Your task to perform on an android device: Go to network settings Image 0: 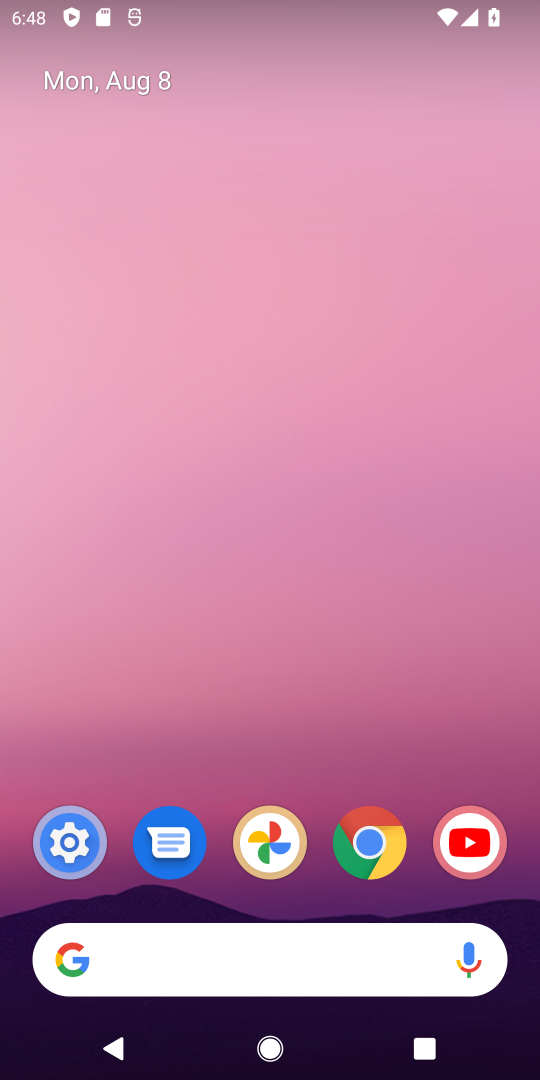
Step 0: drag from (234, 886) to (467, 17)
Your task to perform on an android device: Go to network settings Image 1: 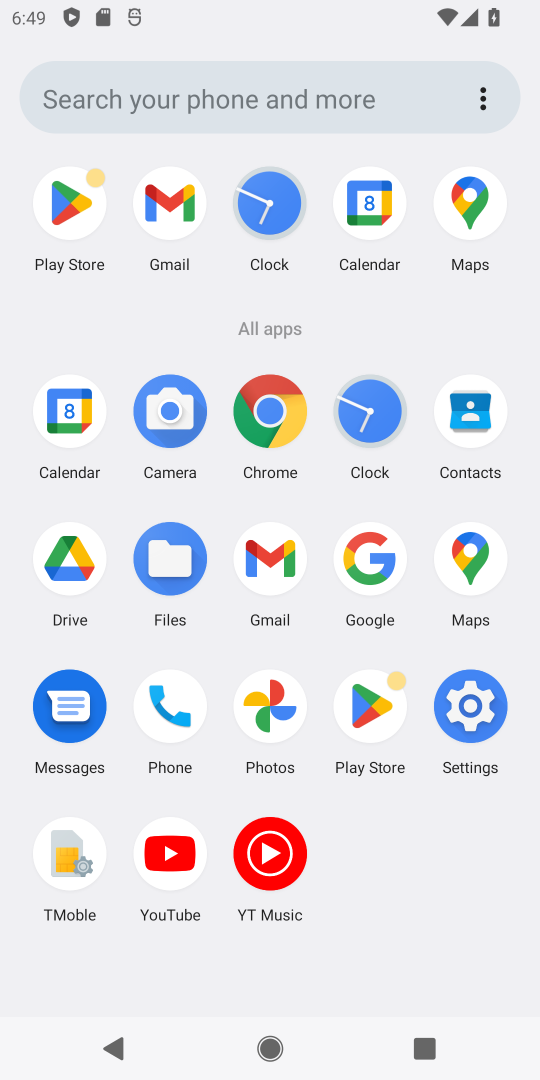
Step 1: click (489, 711)
Your task to perform on an android device: Go to network settings Image 2: 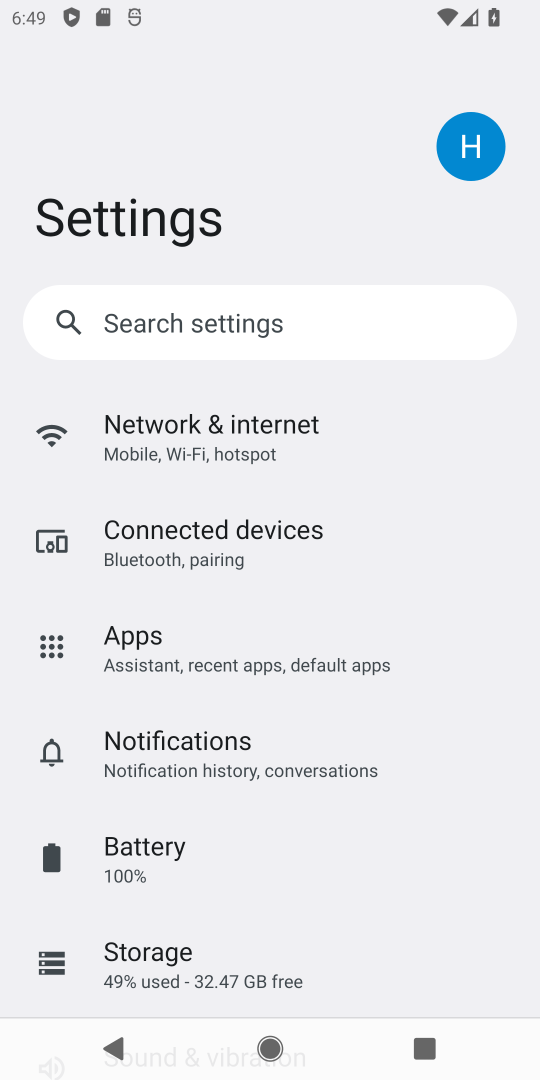
Step 2: click (155, 433)
Your task to perform on an android device: Go to network settings Image 3: 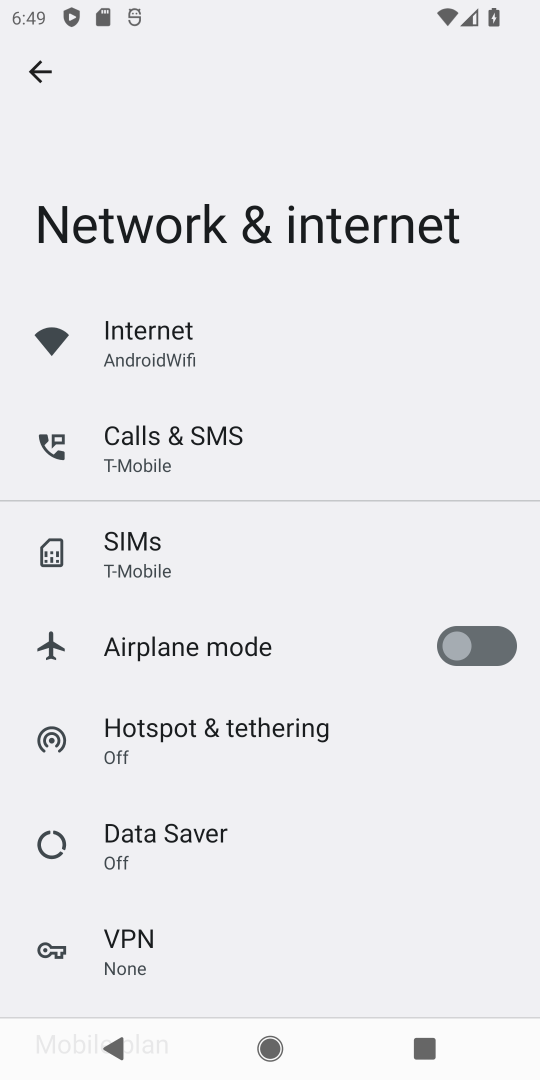
Step 3: click (213, 363)
Your task to perform on an android device: Go to network settings Image 4: 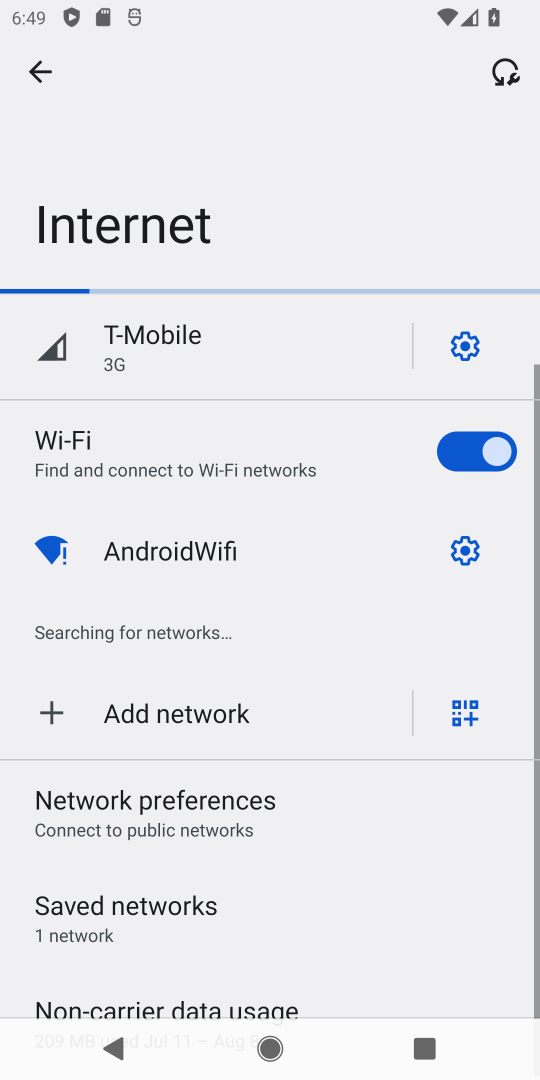
Step 4: task complete